Your task to perform on an android device: See recent photos Image 0: 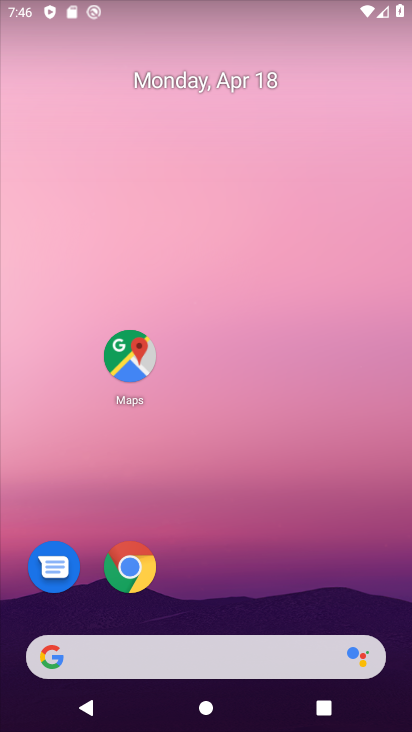
Step 0: click (292, 230)
Your task to perform on an android device: See recent photos Image 1: 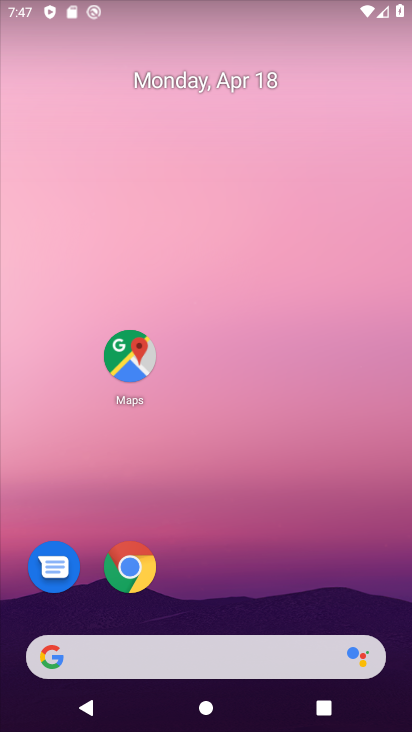
Step 1: drag from (207, 679) to (171, 113)
Your task to perform on an android device: See recent photos Image 2: 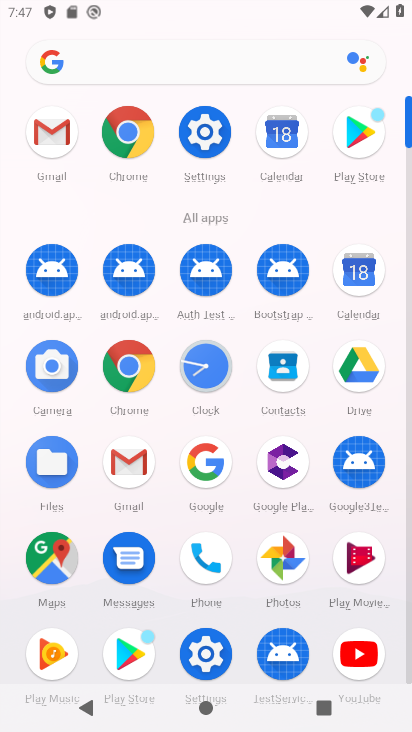
Step 2: click (276, 564)
Your task to perform on an android device: See recent photos Image 3: 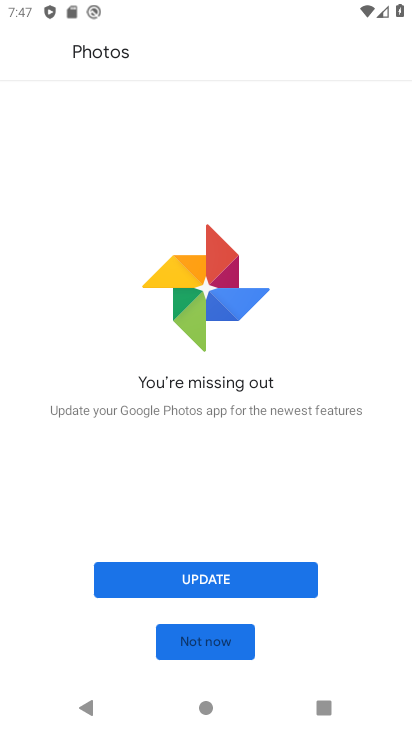
Step 3: click (220, 627)
Your task to perform on an android device: See recent photos Image 4: 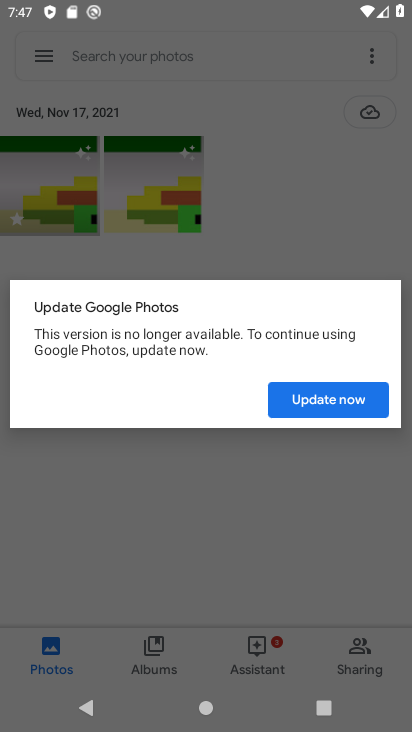
Step 4: click (334, 388)
Your task to perform on an android device: See recent photos Image 5: 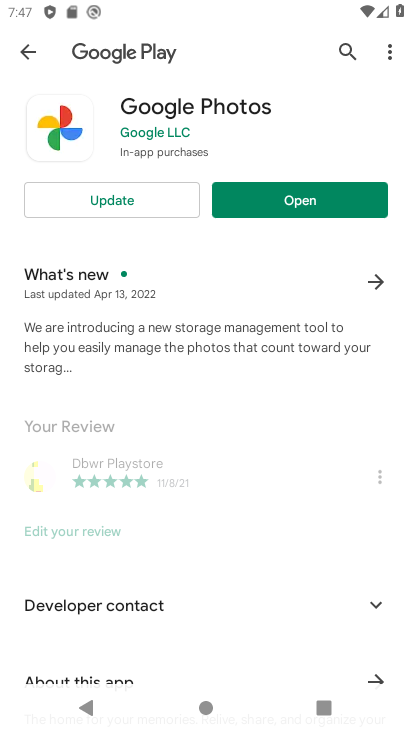
Step 5: click (283, 186)
Your task to perform on an android device: See recent photos Image 6: 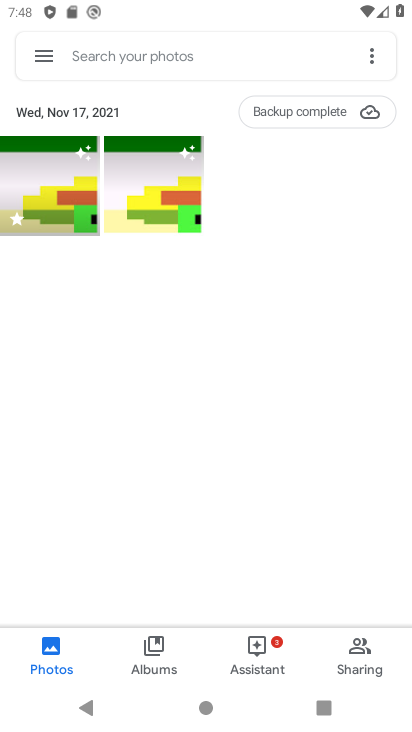
Step 6: task complete